Your task to perform on an android device: move an email to a new category in the gmail app Image 0: 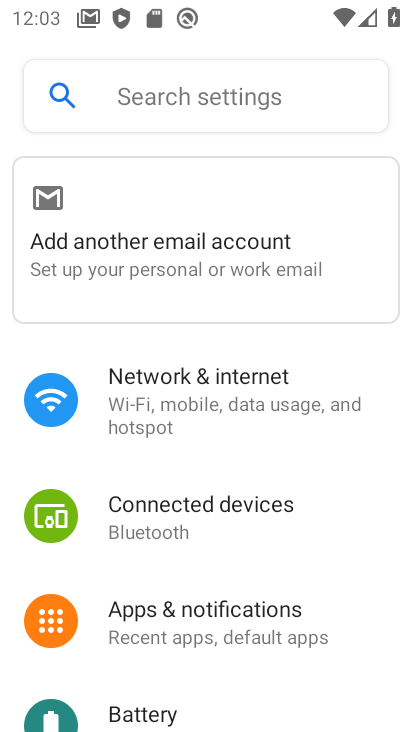
Step 0: press home button
Your task to perform on an android device: move an email to a new category in the gmail app Image 1: 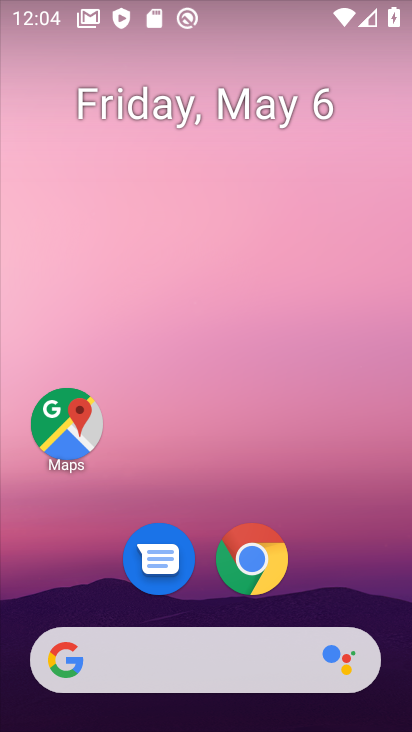
Step 1: drag from (356, 563) to (387, 37)
Your task to perform on an android device: move an email to a new category in the gmail app Image 2: 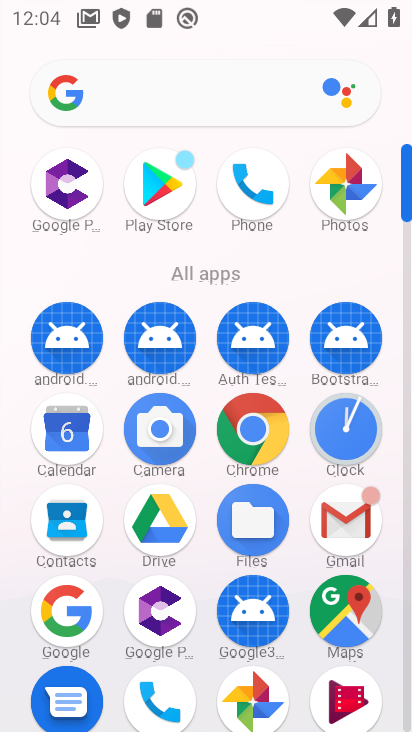
Step 2: click (327, 536)
Your task to perform on an android device: move an email to a new category in the gmail app Image 3: 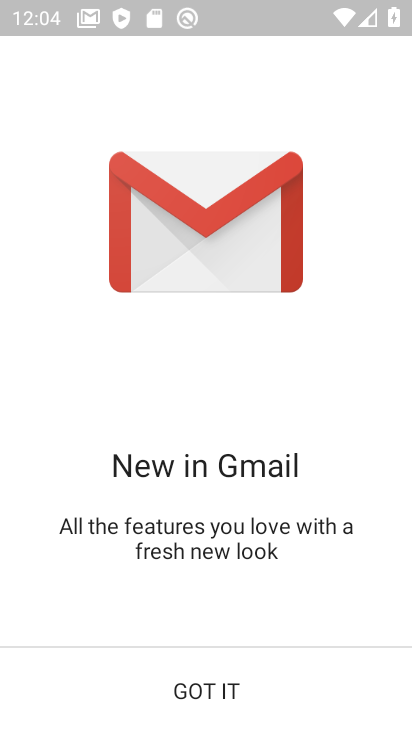
Step 3: click (204, 689)
Your task to perform on an android device: move an email to a new category in the gmail app Image 4: 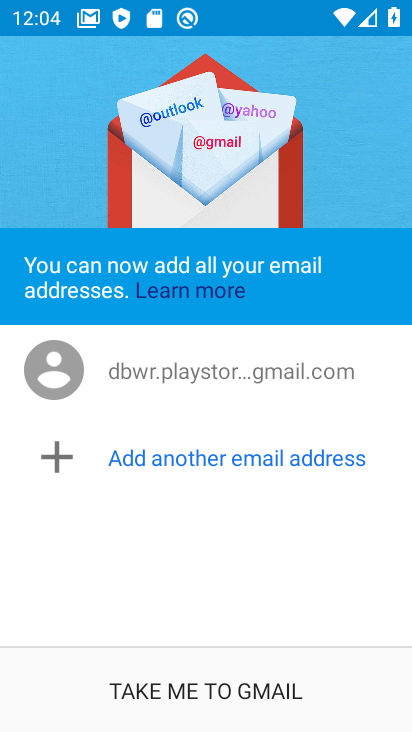
Step 4: click (178, 693)
Your task to perform on an android device: move an email to a new category in the gmail app Image 5: 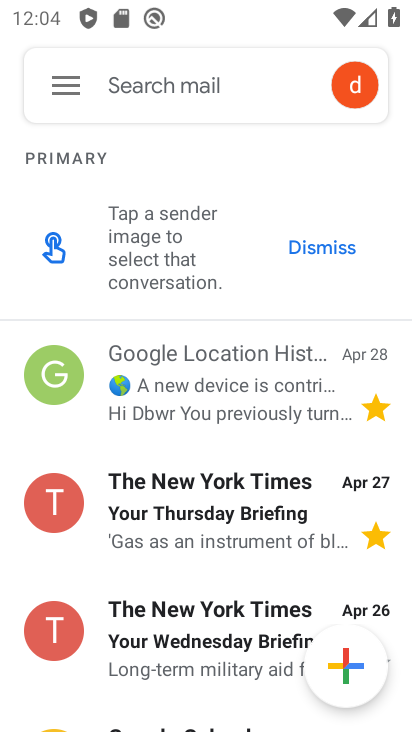
Step 5: click (159, 391)
Your task to perform on an android device: move an email to a new category in the gmail app Image 6: 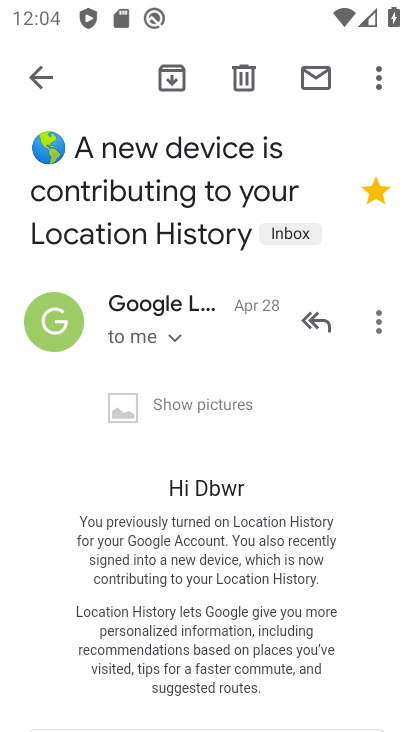
Step 6: click (369, 71)
Your task to perform on an android device: move an email to a new category in the gmail app Image 7: 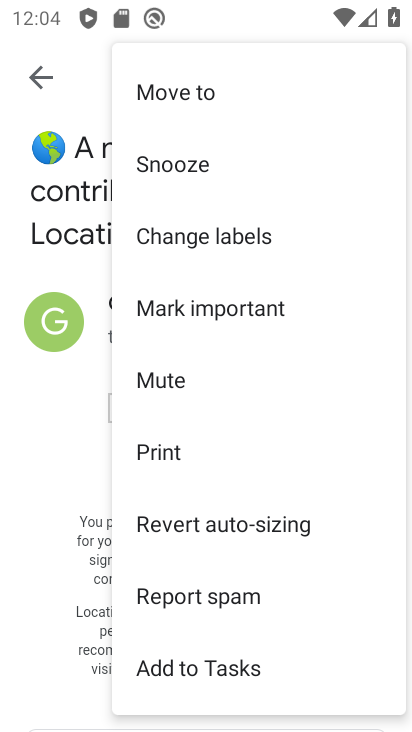
Step 7: click (215, 305)
Your task to perform on an android device: move an email to a new category in the gmail app Image 8: 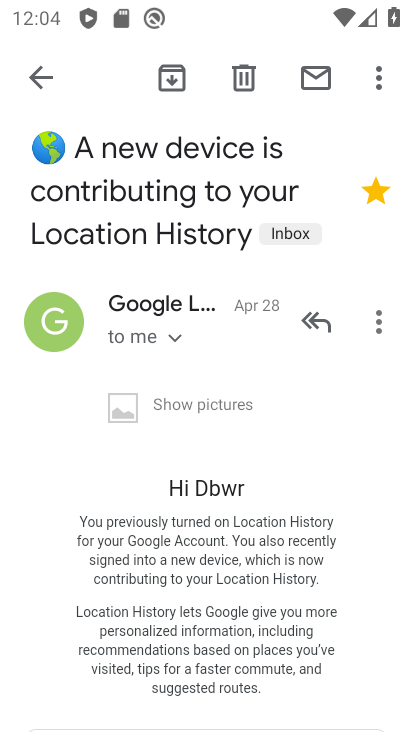
Step 8: task complete